Your task to perform on an android device: Find coffee shops on Maps Image 0: 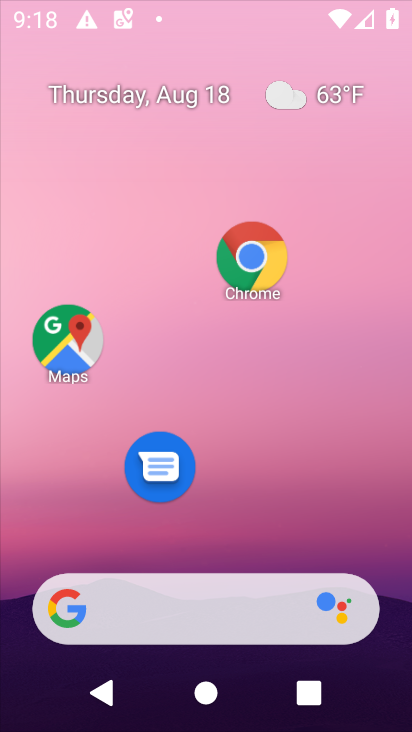
Step 0: drag from (260, 451) to (265, 164)
Your task to perform on an android device: Find coffee shops on Maps Image 1: 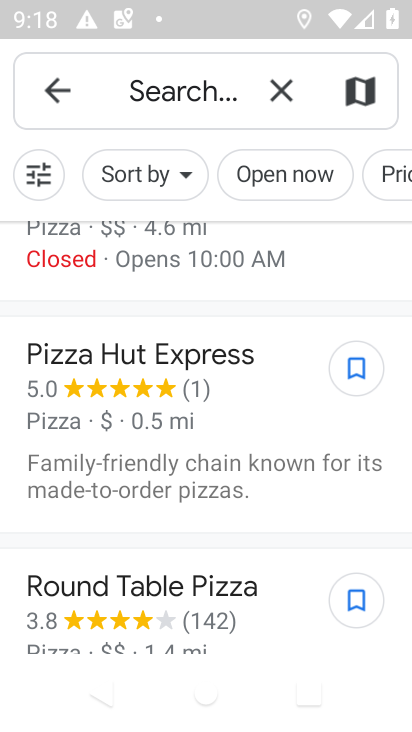
Step 1: task complete